Your task to perform on an android device: When is my next meeting? Image 0: 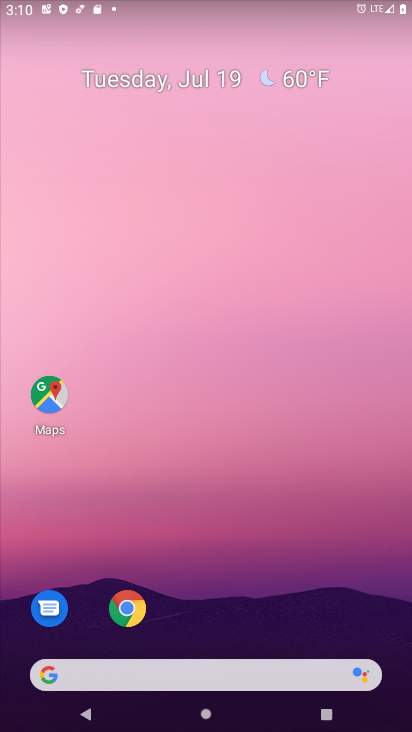
Step 0: drag from (260, 615) to (221, 8)
Your task to perform on an android device: When is my next meeting? Image 1: 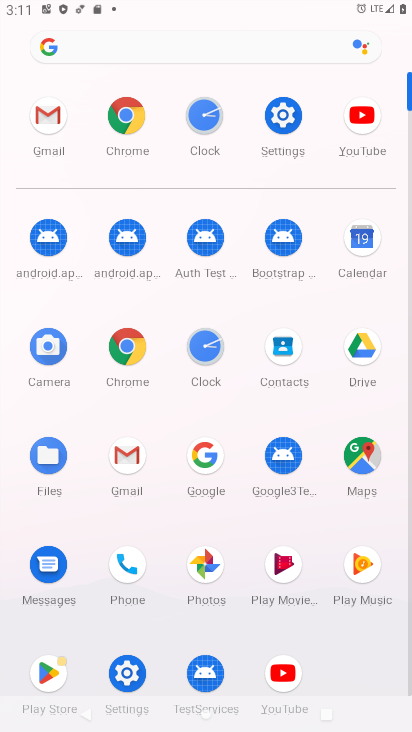
Step 1: click (362, 240)
Your task to perform on an android device: When is my next meeting? Image 2: 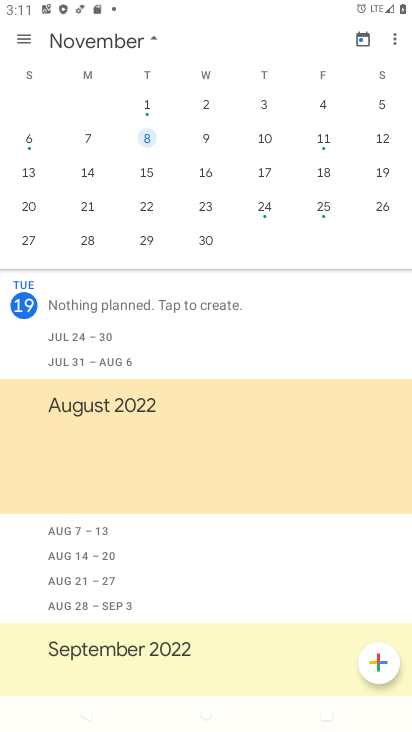
Step 2: task complete